Your task to perform on an android device: Open my contact list Image 0: 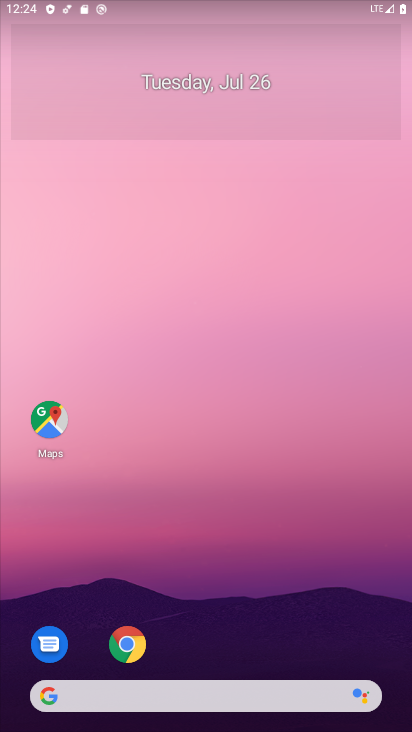
Step 0: drag from (139, 725) to (230, 19)
Your task to perform on an android device: Open my contact list Image 1: 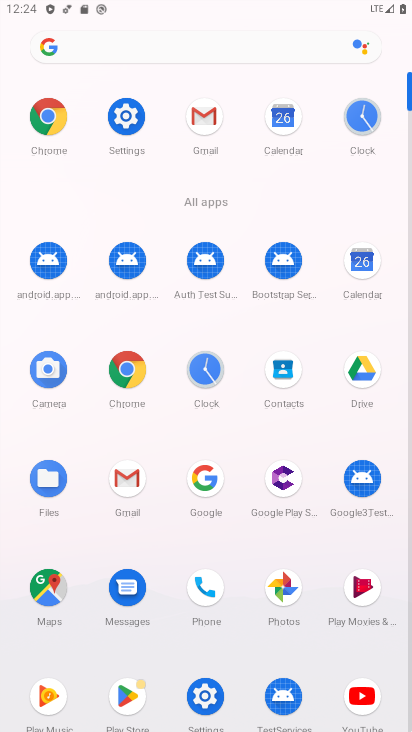
Step 1: click (281, 373)
Your task to perform on an android device: Open my contact list Image 2: 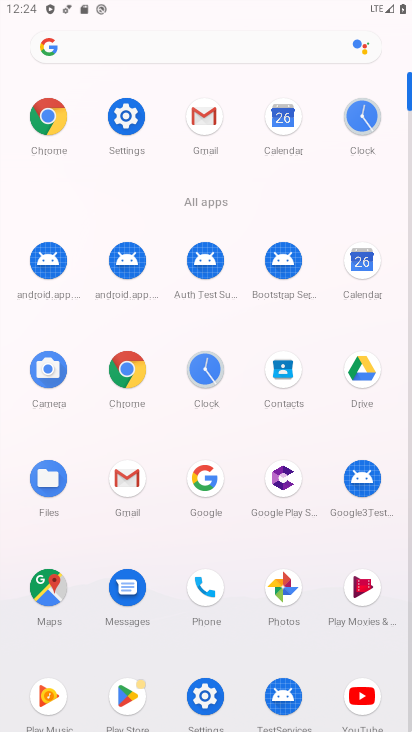
Step 2: click (281, 373)
Your task to perform on an android device: Open my contact list Image 3: 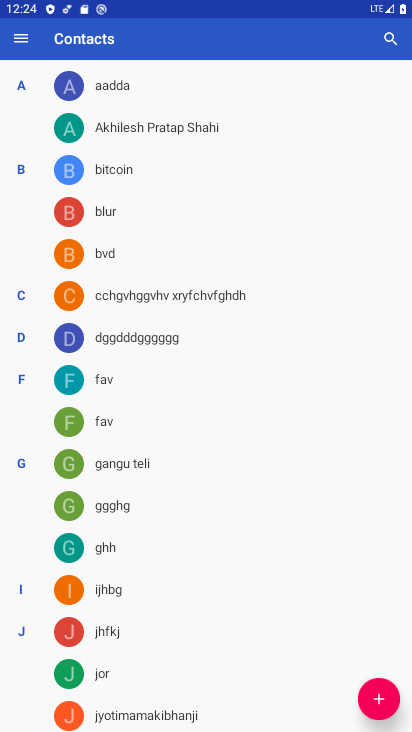
Step 3: task complete